Your task to perform on an android device: What is the news today? Image 0: 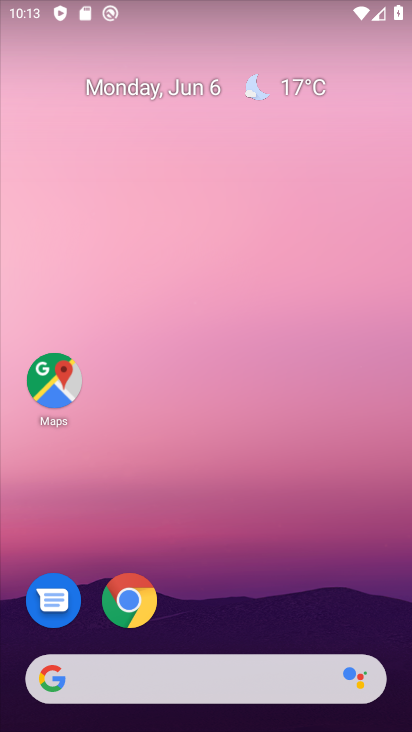
Step 0: click (256, 681)
Your task to perform on an android device: What is the news today? Image 1: 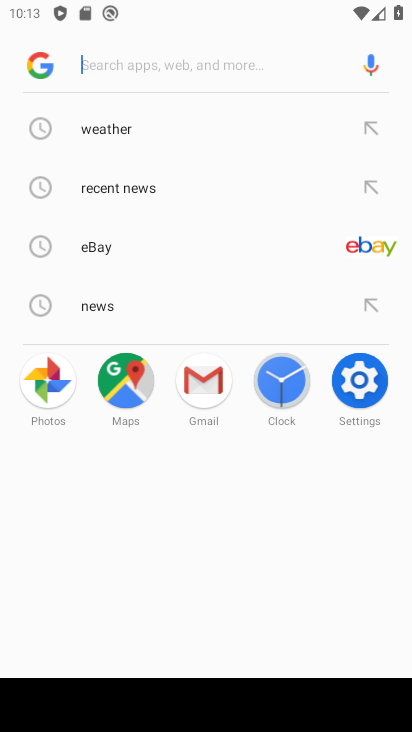
Step 1: click (120, 306)
Your task to perform on an android device: What is the news today? Image 2: 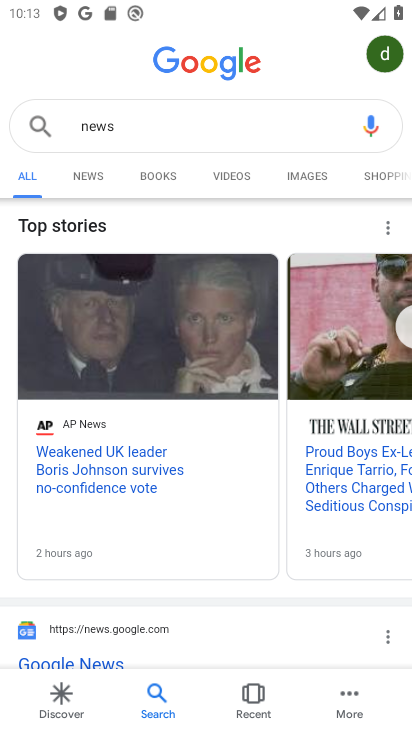
Step 2: task complete